Your task to perform on an android device: turn on location history Image 0: 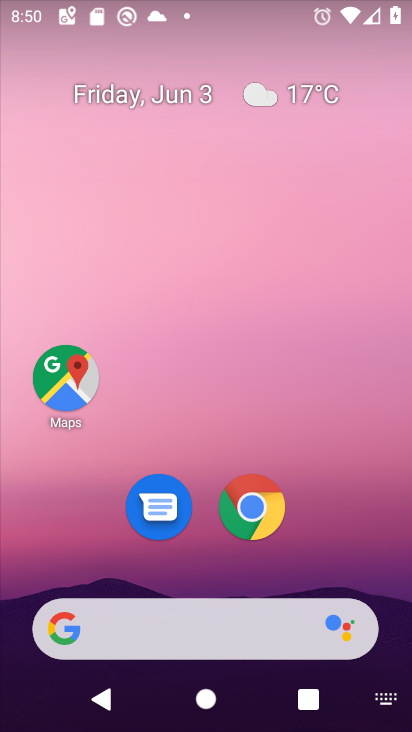
Step 0: drag from (323, 468) to (180, 65)
Your task to perform on an android device: turn on location history Image 1: 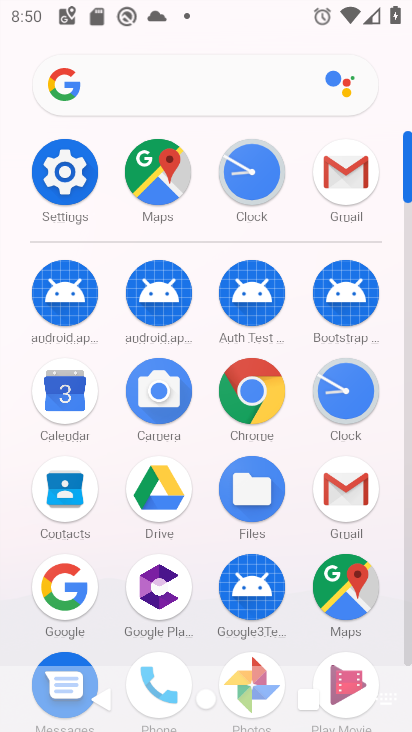
Step 1: click (76, 174)
Your task to perform on an android device: turn on location history Image 2: 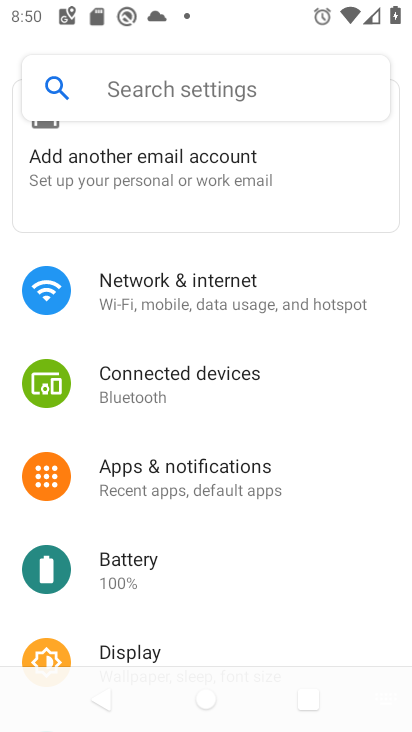
Step 2: drag from (264, 519) to (165, 44)
Your task to perform on an android device: turn on location history Image 3: 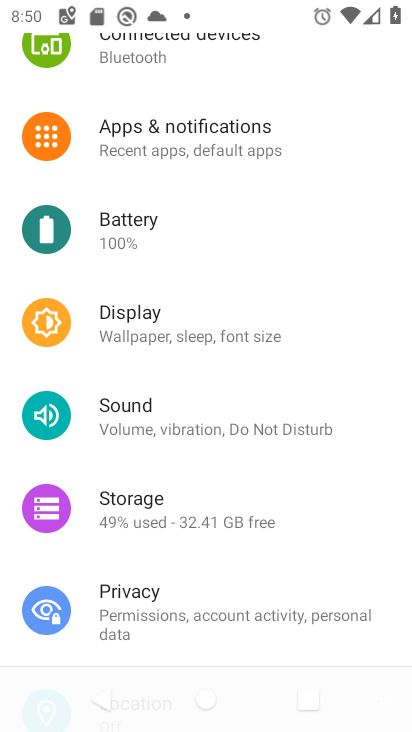
Step 3: drag from (232, 505) to (189, 85)
Your task to perform on an android device: turn on location history Image 4: 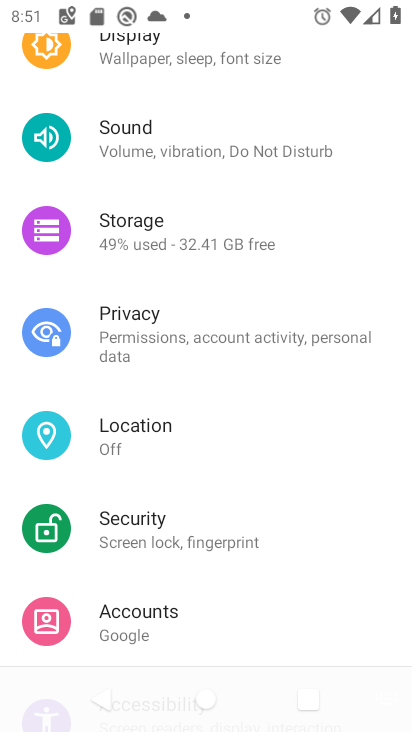
Step 4: click (153, 440)
Your task to perform on an android device: turn on location history Image 5: 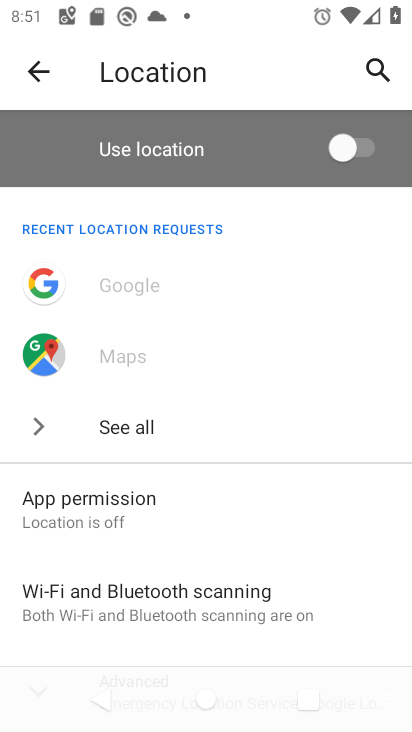
Step 5: drag from (228, 569) to (199, 60)
Your task to perform on an android device: turn on location history Image 6: 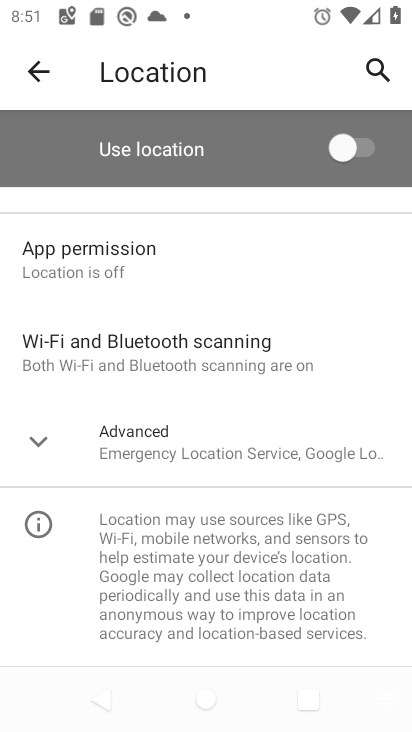
Step 6: click (257, 427)
Your task to perform on an android device: turn on location history Image 7: 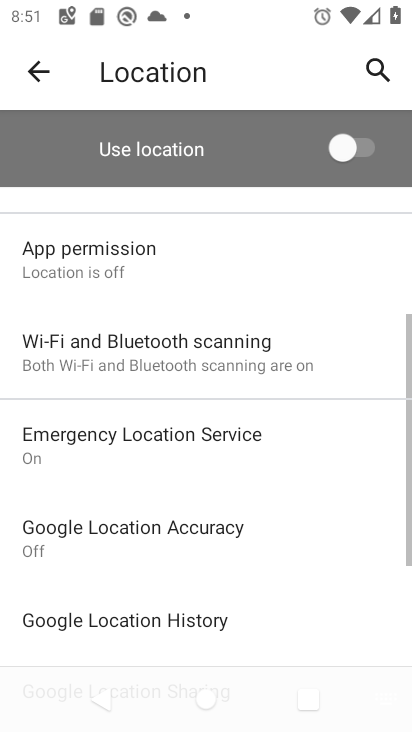
Step 7: click (246, 611)
Your task to perform on an android device: turn on location history Image 8: 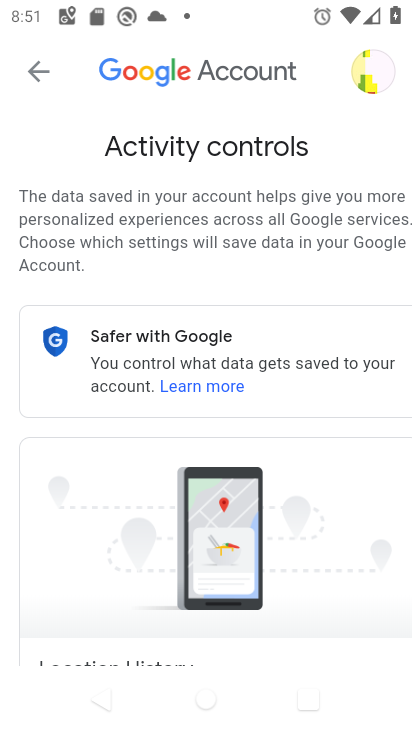
Step 8: task complete